Your task to perform on an android device: change the clock display to show seconds Image 0: 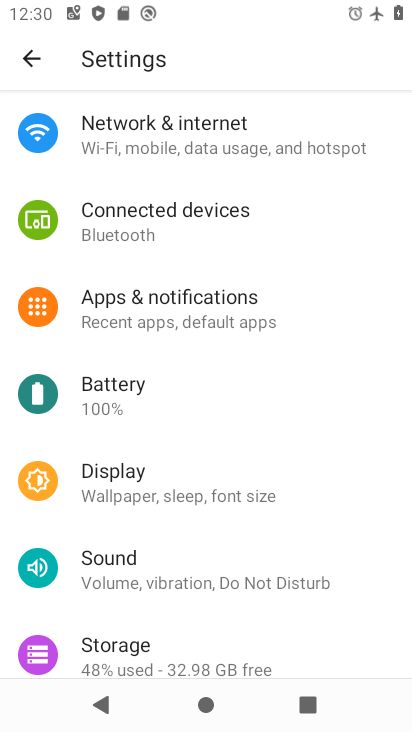
Step 0: press home button
Your task to perform on an android device: change the clock display to show seconds Image 1: 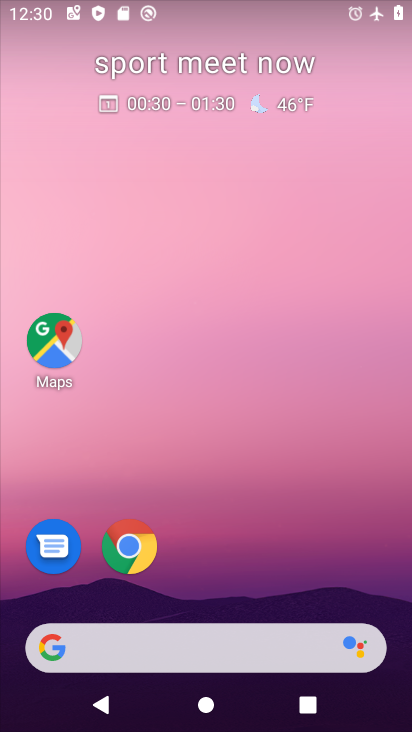
Step 1: drag from (259, 592) to (298, 69)
Your task to perform on an android device: change the clock display to show seconds Image 2: 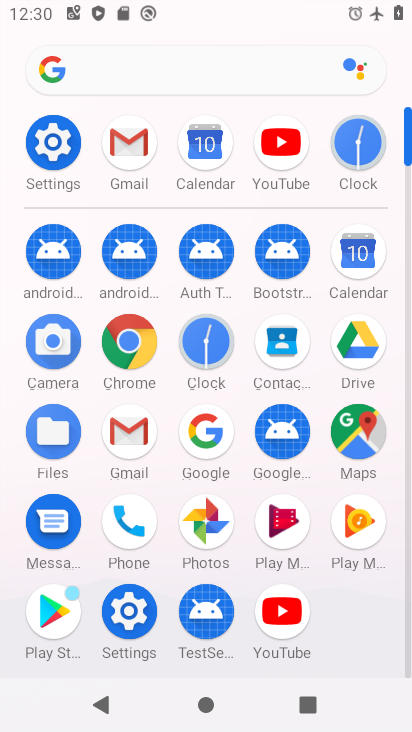
Step 2: click (361, 153)
Your task to perform on an android device: change the clock display to show seconds Image 3: 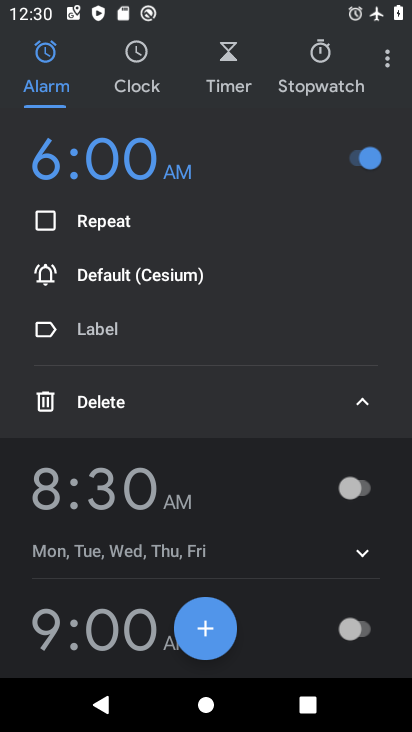
Step 3: click (389, 57)
Your task to perform on an android device: change the clock display to show seconds Image 4: 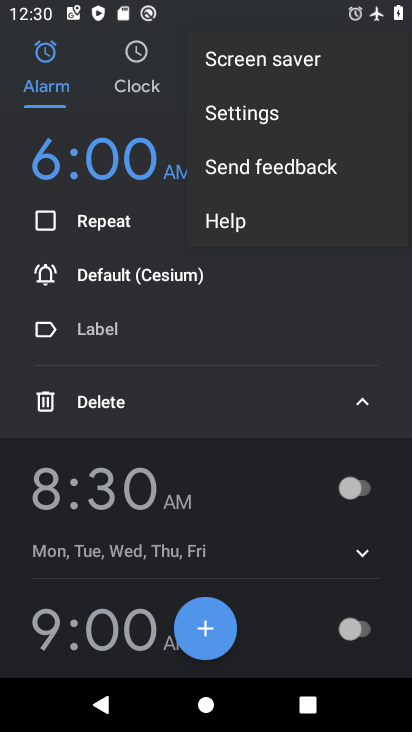
Step 4: click (261, 115)
Your task to perform on an android device: change the clock display to show seconds Image 5: 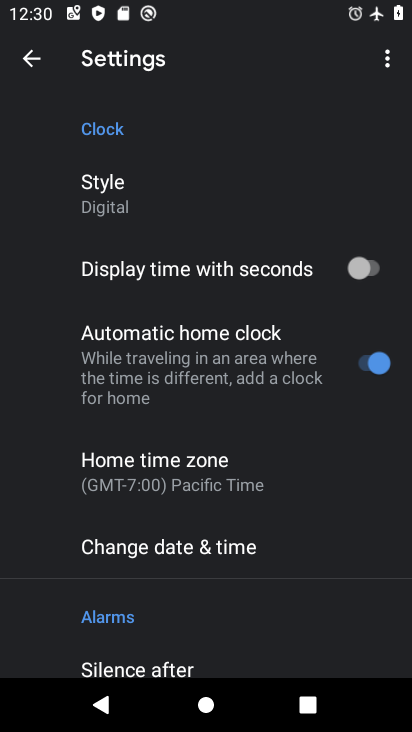
Step 5: click (362, 267)
Your task to perform on an android device: change the clock display to show seconds Image 6: 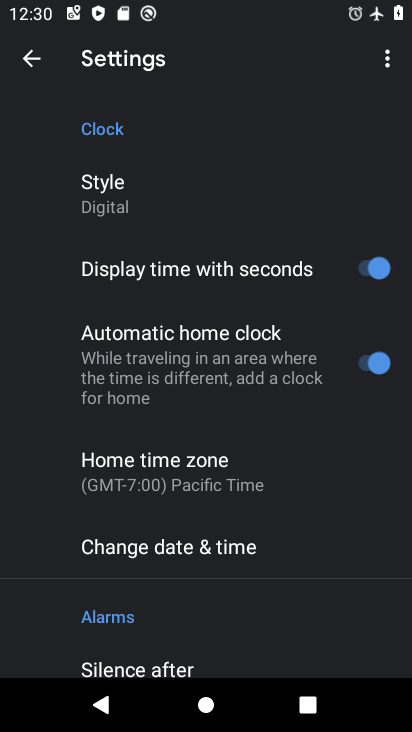
Step 6: task complete